Your task to perform on an android device: Search for pizza restaurants on Maps Image 0: 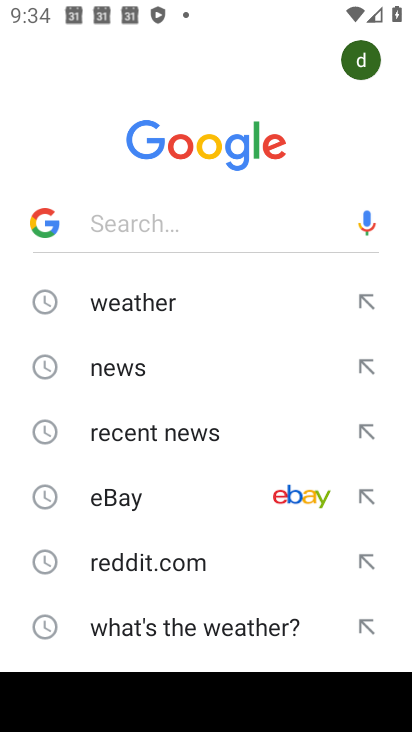
Step 0: press home button
Your task to perform on an android device: Search for pizza restaurants on Maps Image 1: 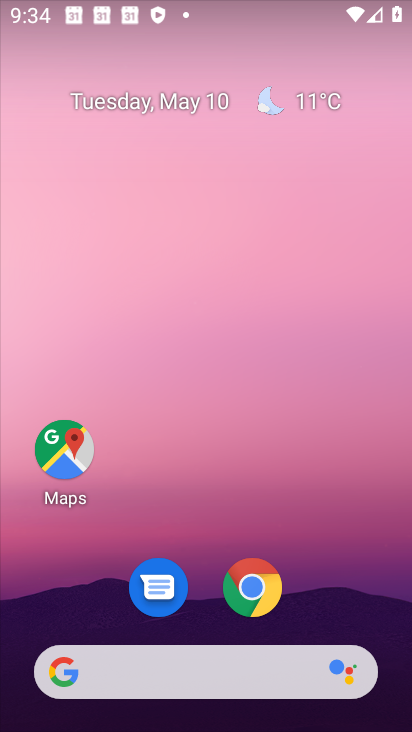
Step 1: drag from (378, 577) to (376, 162)
Your task to perform on an android device: Search for pizza restaurants on Maps Image 2: 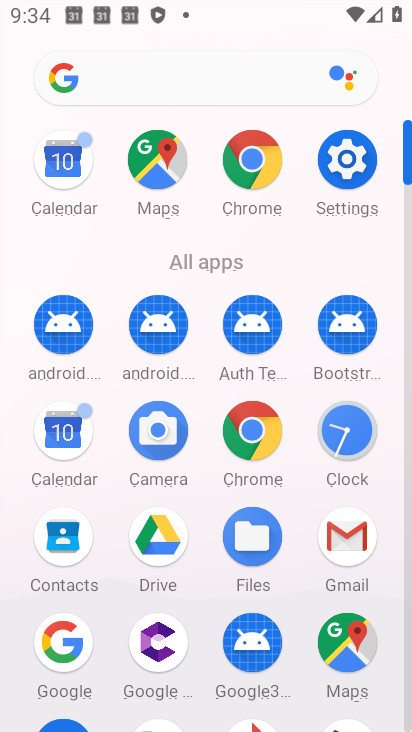
Step 2: click (157, 171)
Your task to perform on an android device: Search for pizza restaurants on Maps Image 3: 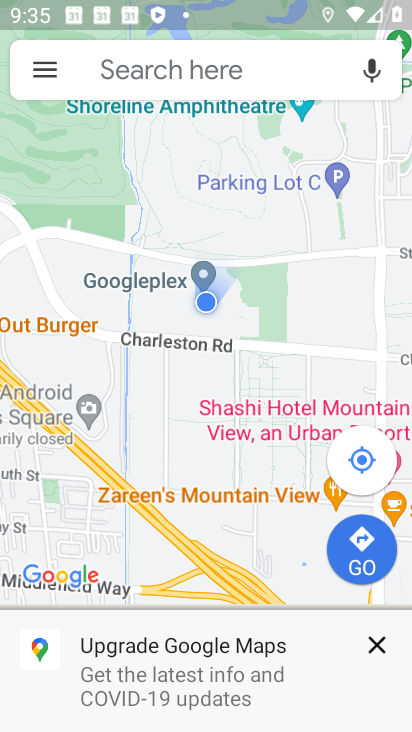
Step 3: click (146, 72)
Your task to perform on an android device: Search for pizza restaurants on Maps Image 4: 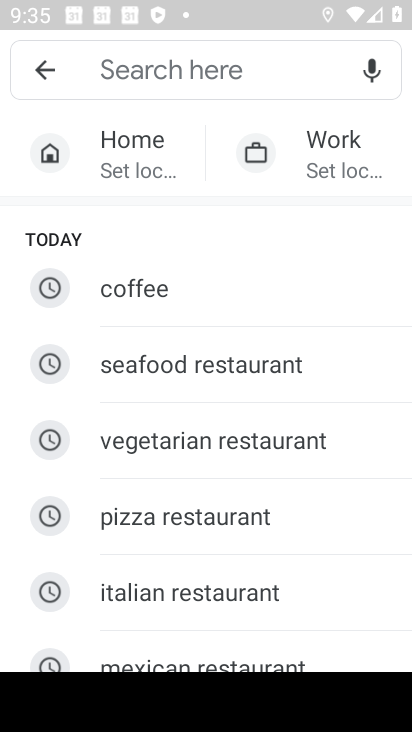
Step 4: click (154, 522)
Your task to perform on an android device: Search for pizza restaurants on Maps Image 5: 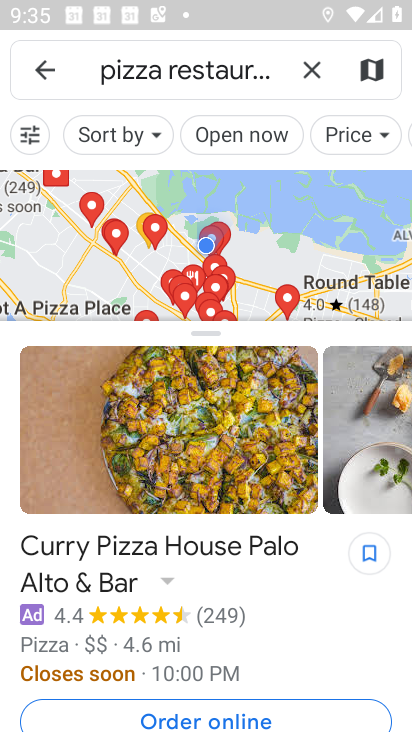
Step 5: task complete